Your task to perform on an android device: toggle notification dots Image 0: 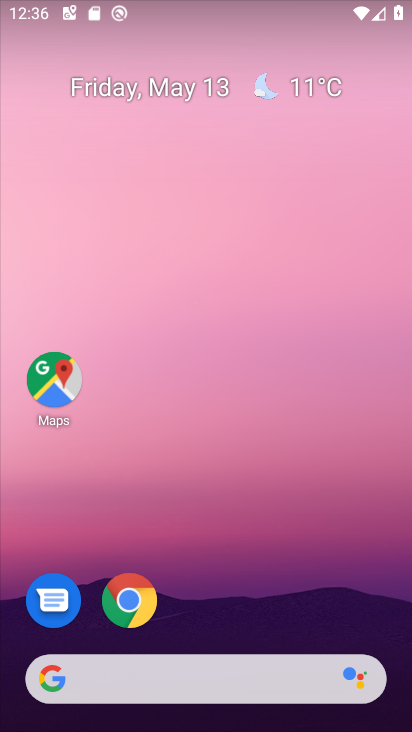
Step 0: drag from (181, 522) to (236, 125)
Your task to perform on an android device: toggle notification dots Image 1: 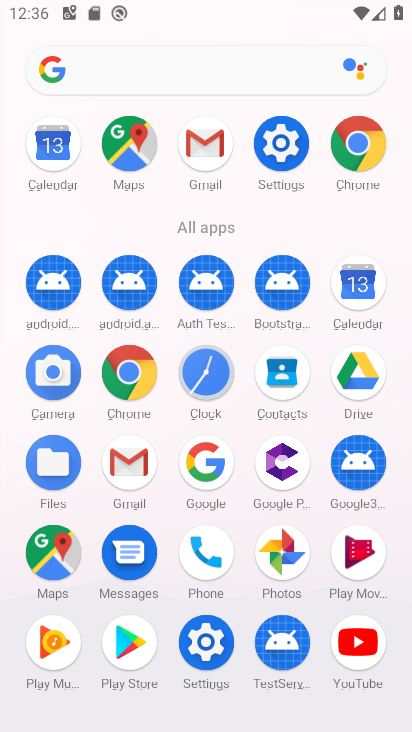
Step 1: click (264, 143)
Your task to perform on an android device: toggle notification dots Image 2: 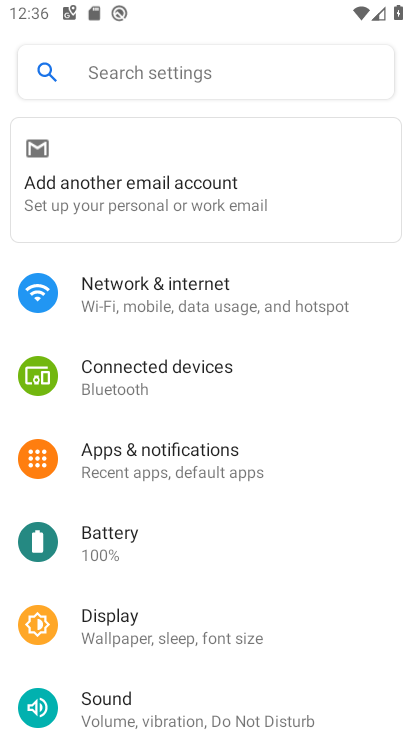
Step 2: click (210, 468)
Your task to perform on an android device: toggle notification dots Image 3: 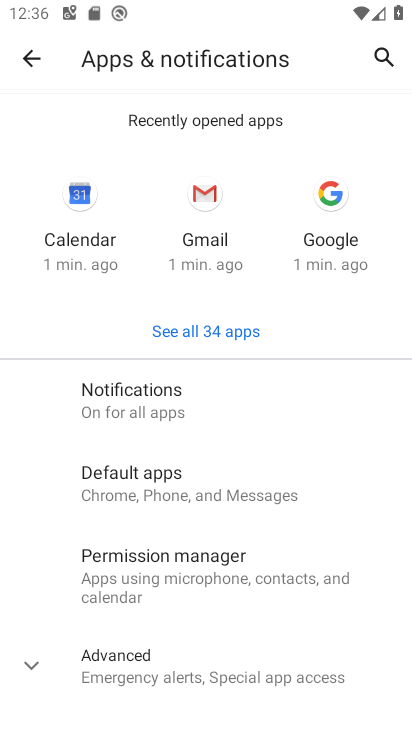
Step 3: click (185, 401)
Your task to perform on an android device: toggle notification dots Image 4: 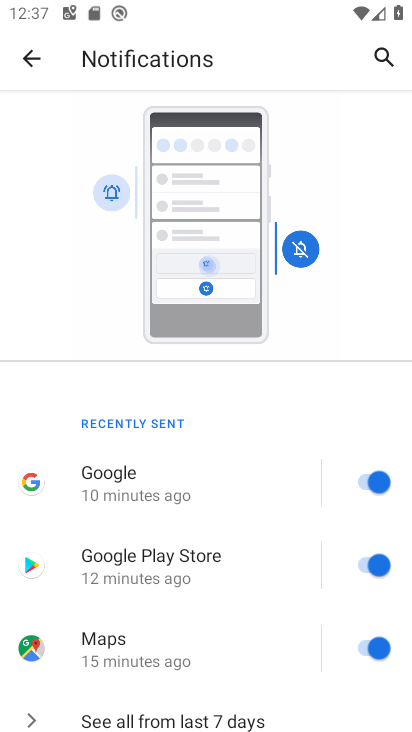
Step 4: drag from (217, 682) to (265, 151)
Your task to perform on an android device: toggle notification dots Image 5: 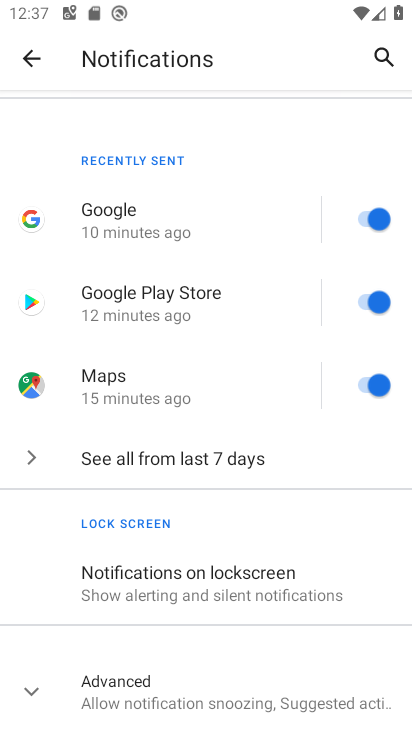
Step 5: click (162, 705)
Your task to perform on an android device: toggle notification dots Image 6: 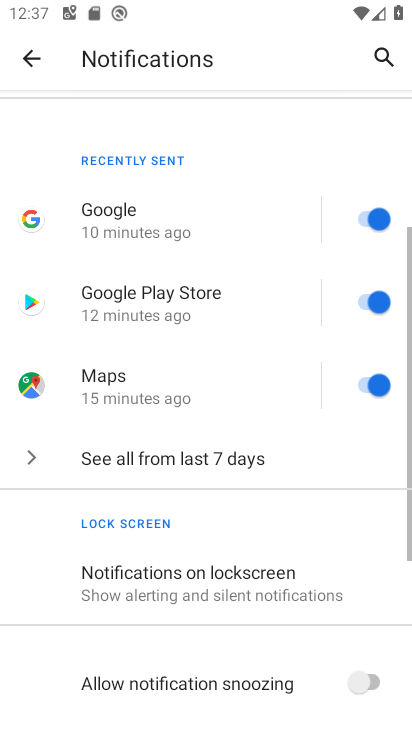
Step 6: drag from (163, 678) to (206, 157)
Your task to perform on an android device: toggle notification dots Image 7: 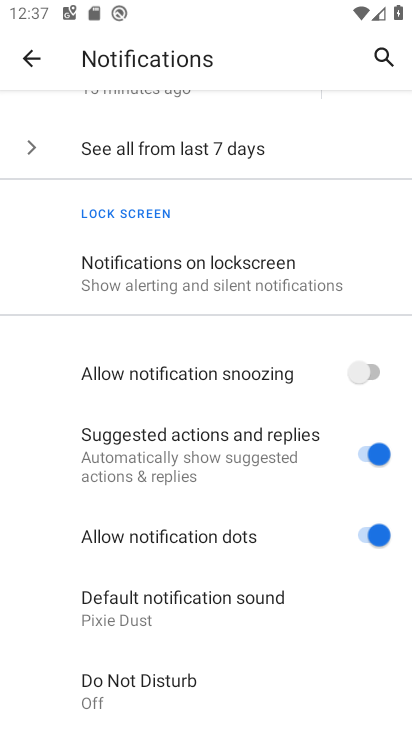
Step 7: click (366, 531)
Your task to perform on an android device: toggle notification dots Image 8: 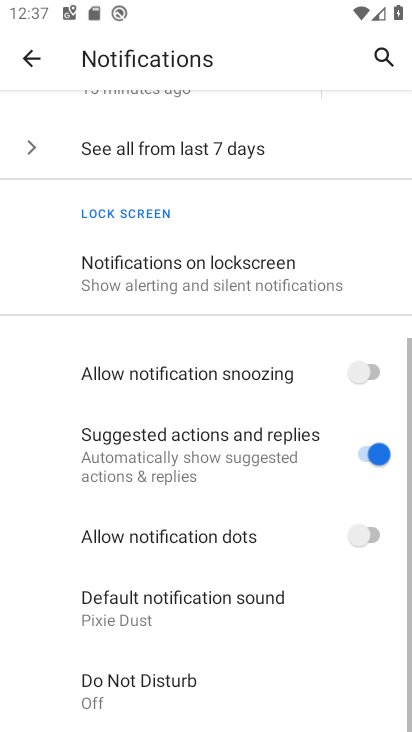
Step 8: task complete